Your task to perform on an android device: turn off location Image 0: 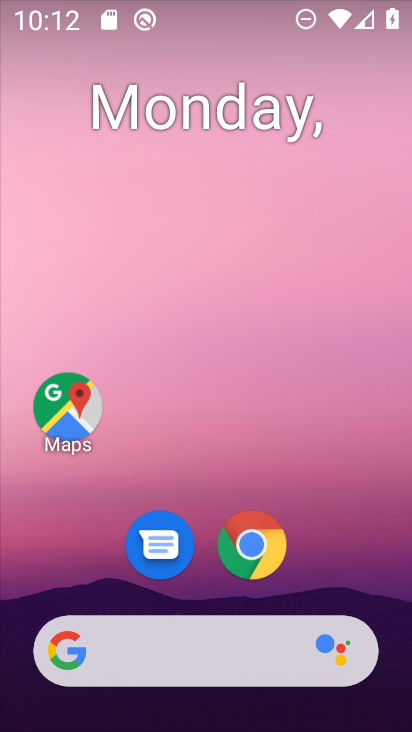
Step 0: press home button
Your task to perform on an android device: turn off location Image 1: 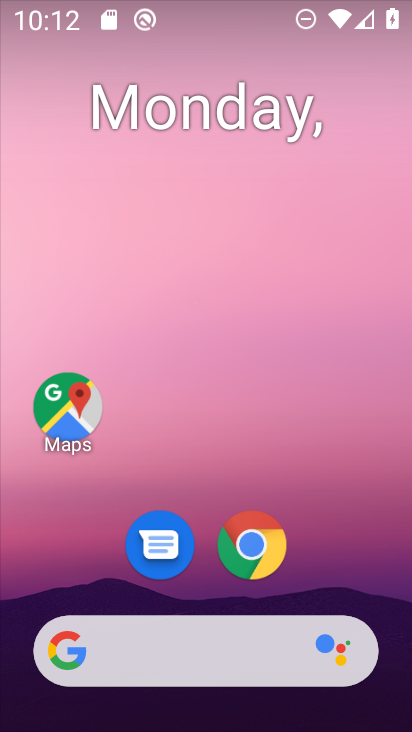
Step 1: drag from (11, 638) to (286, 280)
Your task to perform on an android device: turn off location Image 2: 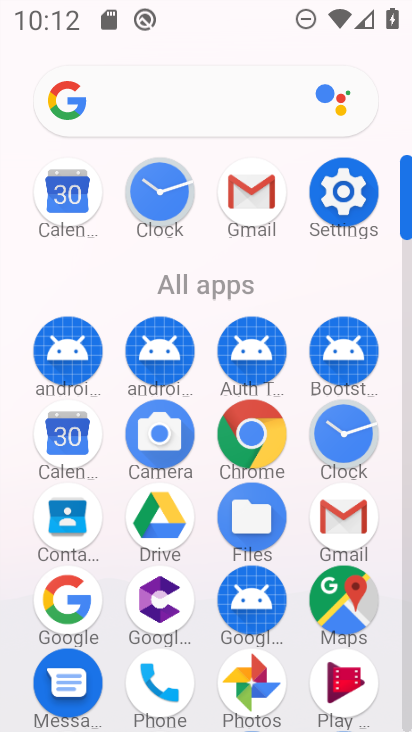
Step 2: click (328, 195)
Your task to perform on an android device: turn off location Image 3: 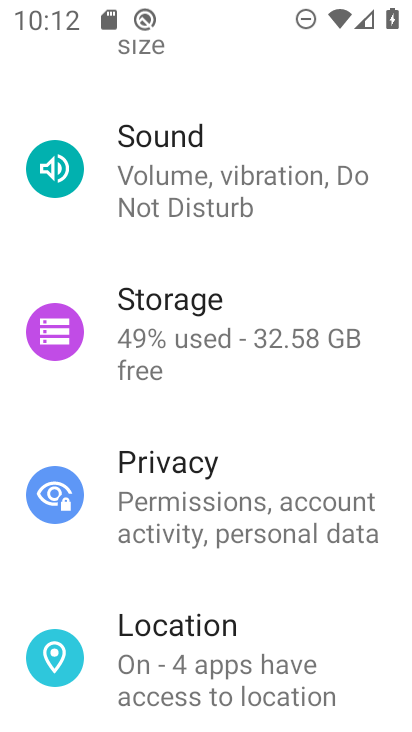
Step 3: click (137, 662)
Your task to perform on an android device: turn off location Image 4: 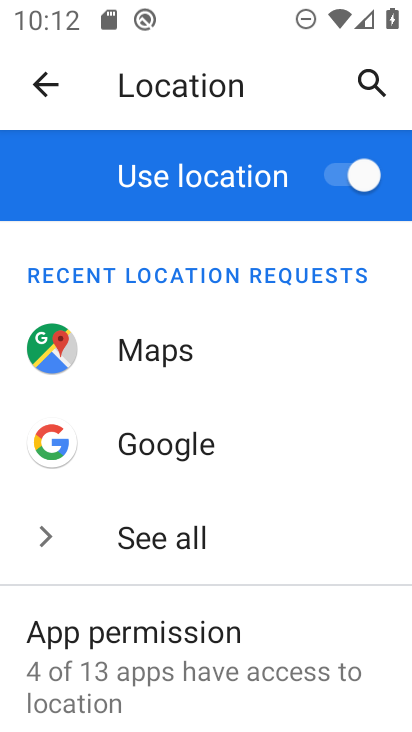
Step 4: click (369, 183)
Your task to perform on an android device: turn off location Image 5: 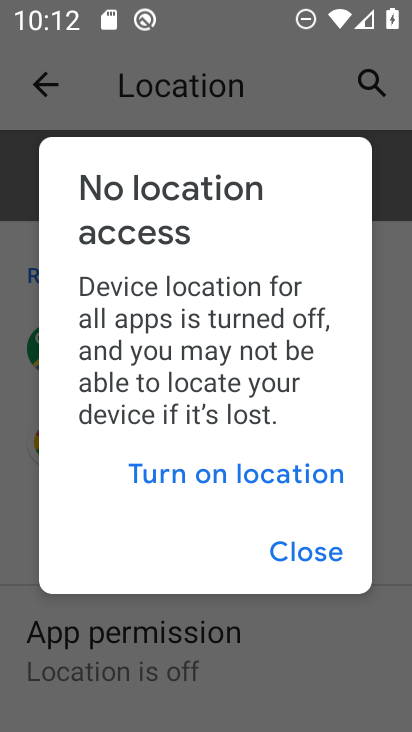
Step 5: click (320, 560)
Your task to perform on an android device: turn off location Image 6: 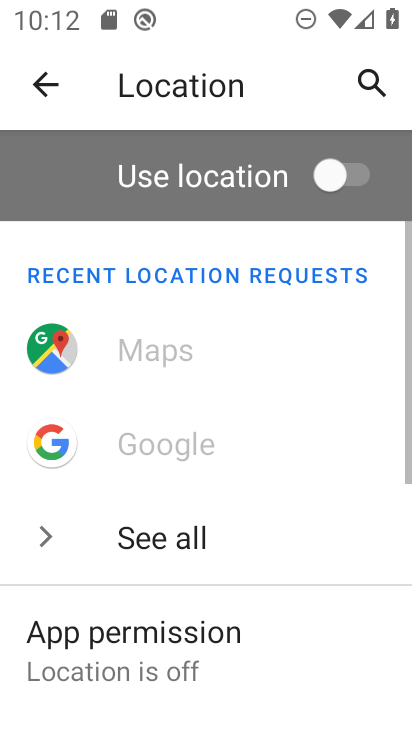
Step 6: task complete